Your task to perform on an android device: change the clock display to digital Image 0: 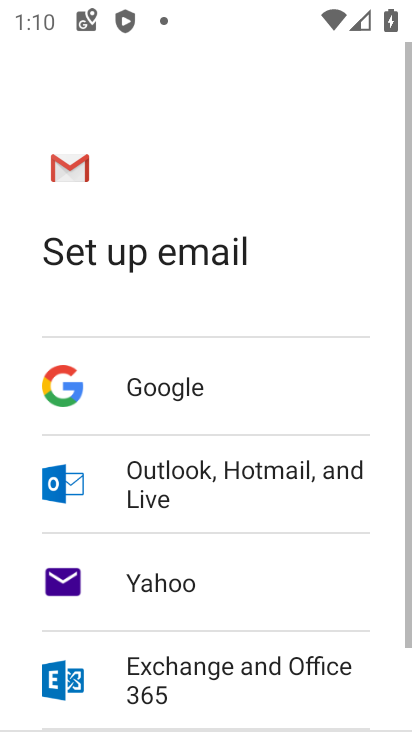
Step 0: press home button
Your task to perform on an android device: change the clock display to digital Image 1: 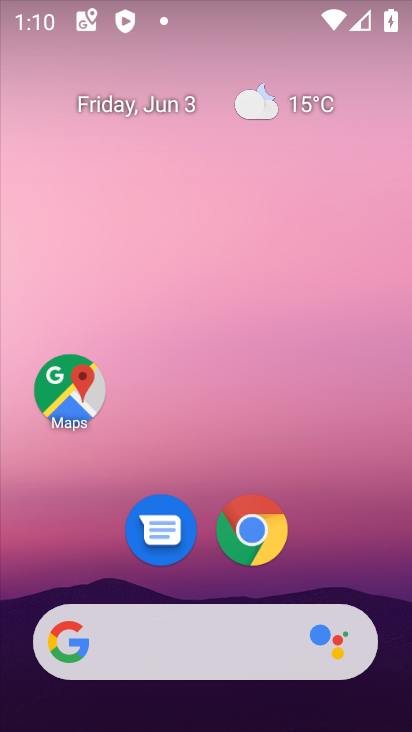
Step 1: drag from (379, 561) to (392, 111)
Your task to perform on an android device: change the clock display to digital Image 2: 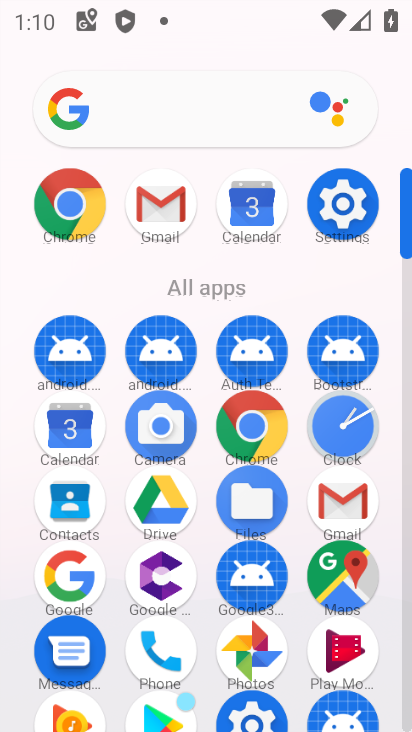
Step 2: click (353, 418)
Your task to perform on an android device: change the clock display to digital Image 3: 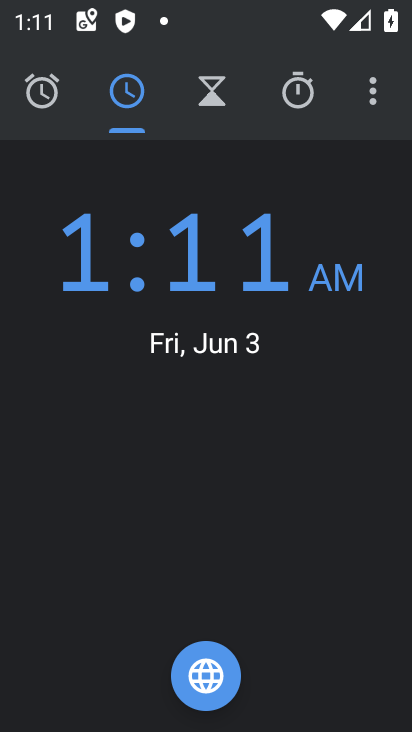
Step 3: click (379, 100)
Your task to perform on an android device: change the clock display to digital Image 4: 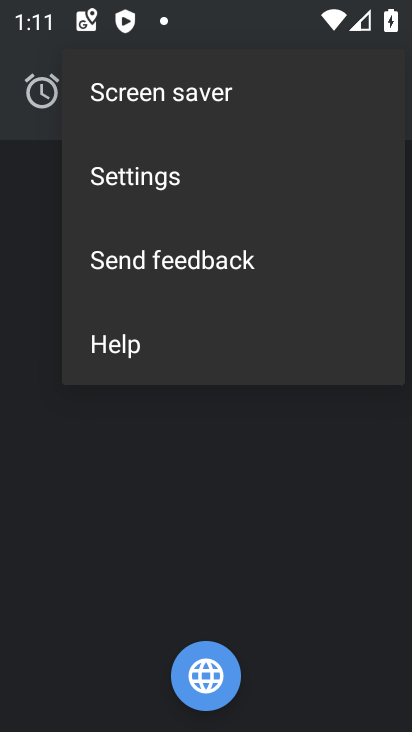
Step 4: click (106, 181)
Your task to perform on an android device: change the clock display to digital Image 5: 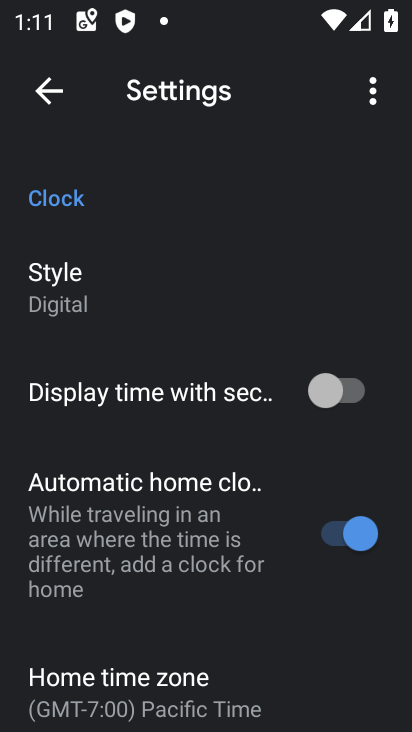
Step 5: click (273, 594)
Your task to perform on an android device: change the clock display to digital Image 6: 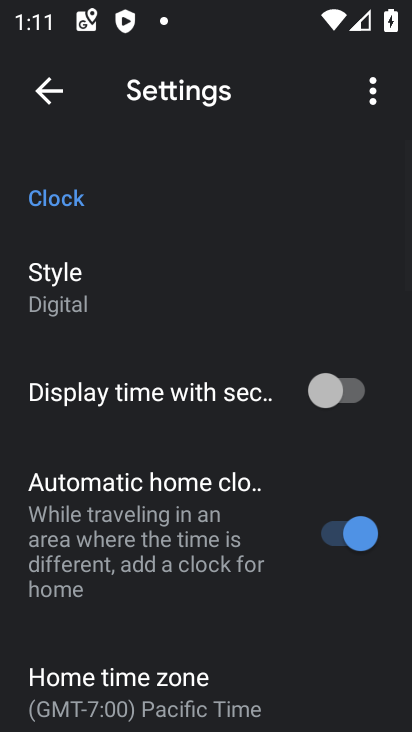
Step 6: click (111, 303)
Your task to perform on an android device: change the clock display to digital Image 7: 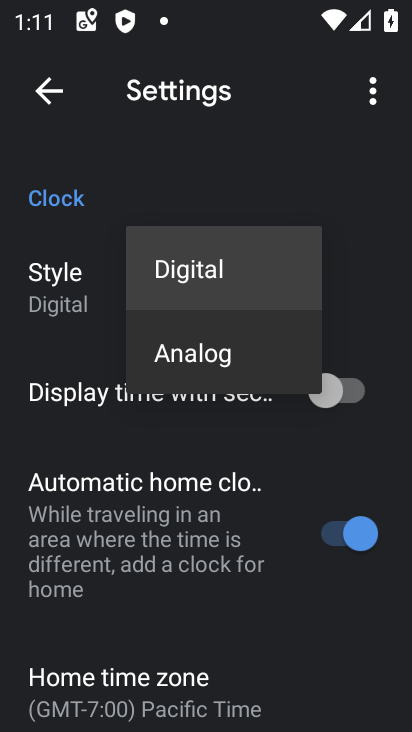
Step 7: task complete